Your task to perform on an android device: change notification settings in the gmail app Image 0: 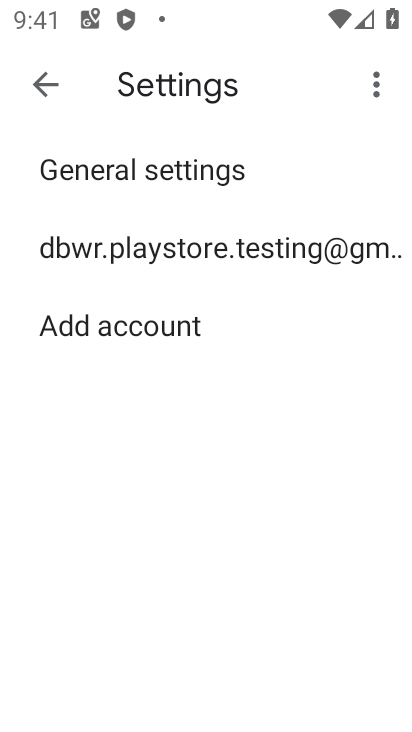
Step 0: click (51, 94)
Your task to perform on an android device: change notification settings in the gmail app Image 1: 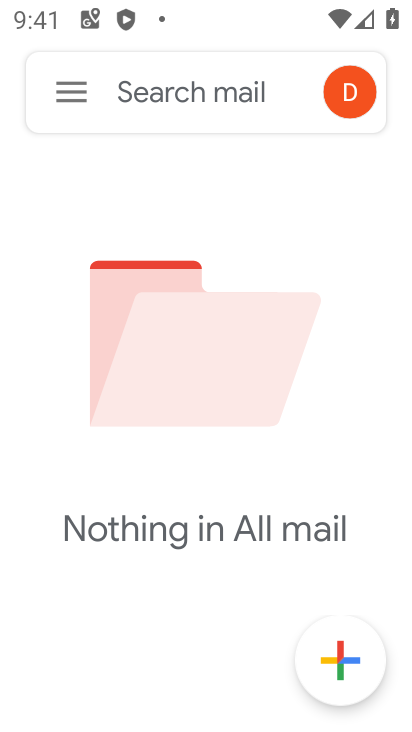
Step 1: click (51, 94)
Your task to perform on an android device: change notification settings in the gmail app Image 2: 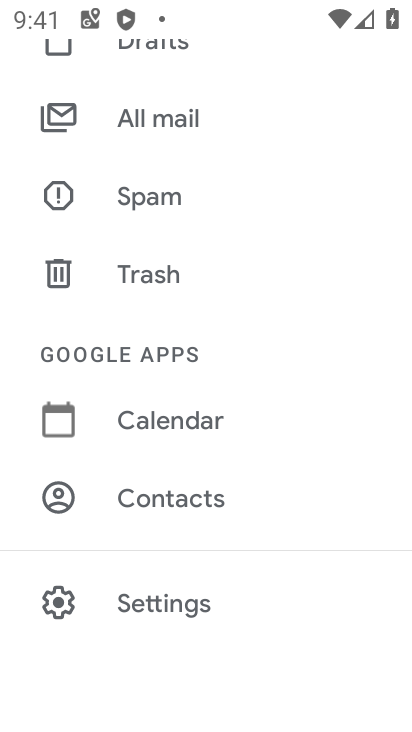
Step 2: click (186, 630)
Your task to perform on an android device: change notification settings in the gmail app Image 3: 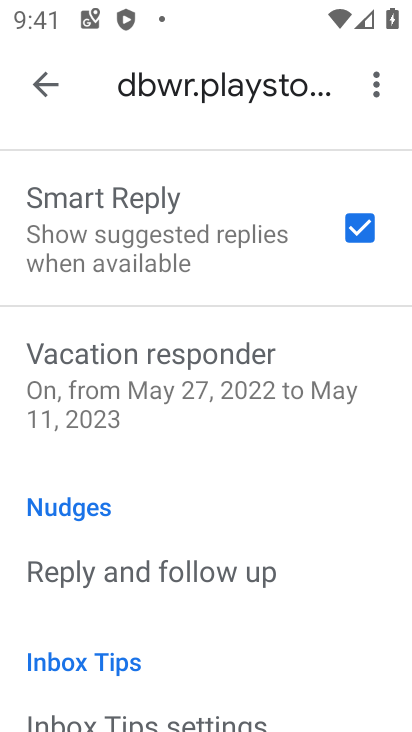
Step 3: drag from (226, 626) to (196, 193)
Your task to perform on an android device: change notification settings in the gmail app Image 4: 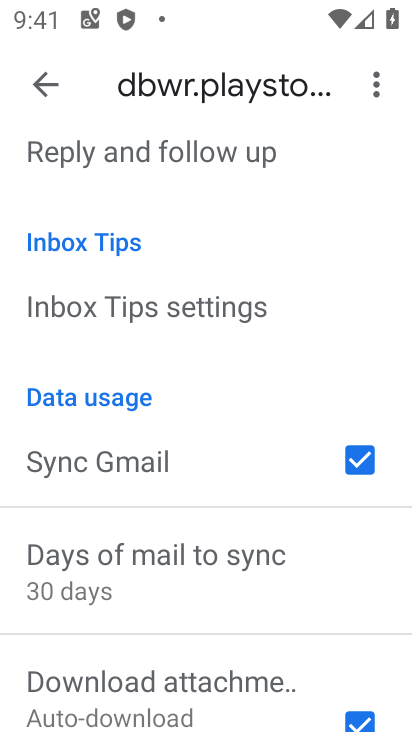
Step 4: drag from (261, 579) to (275, 135)
Your task to perform on an android device: change notification settings in the gmail app Image 5: 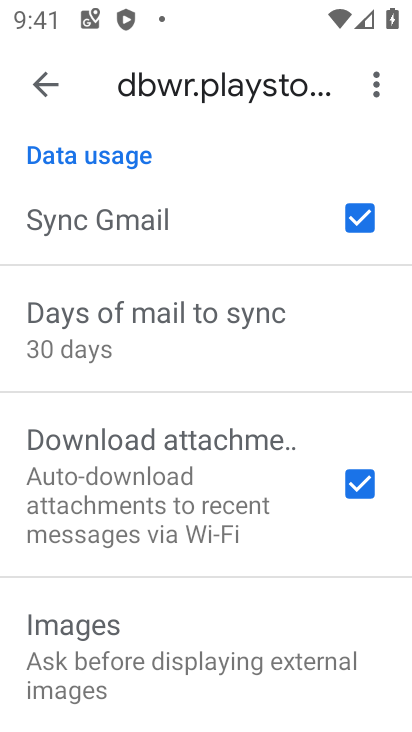
Step 5: drag from (199, 602) to (157, 153)
Your task to perform on an android device: change notification settings in the gmail app Image 6: 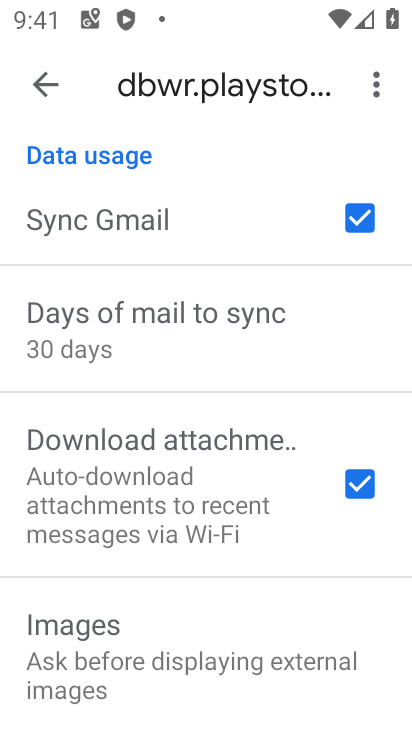
Step 6: drag from (158, 152) to (195, 685)
Your task to perform on an android device: change notification settings in the gmail app Image 7: 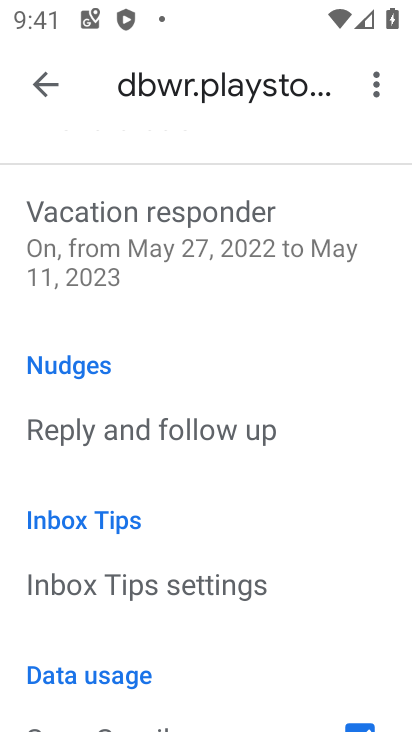
Step 7: drag from (114, 232) to (210, 714)
Your task to perform on an android device: change notification settings in the gmail app Image 8: 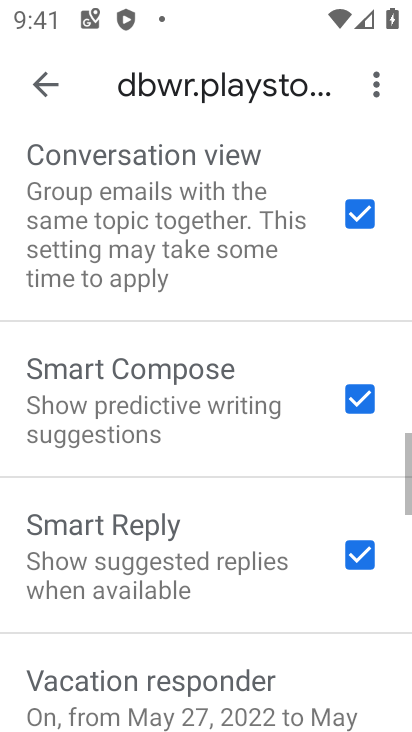
Step 8: drag from (148, 201) to (242, 709)
Your task to perform on an android device: change notification settings in the gmail app Image 9: 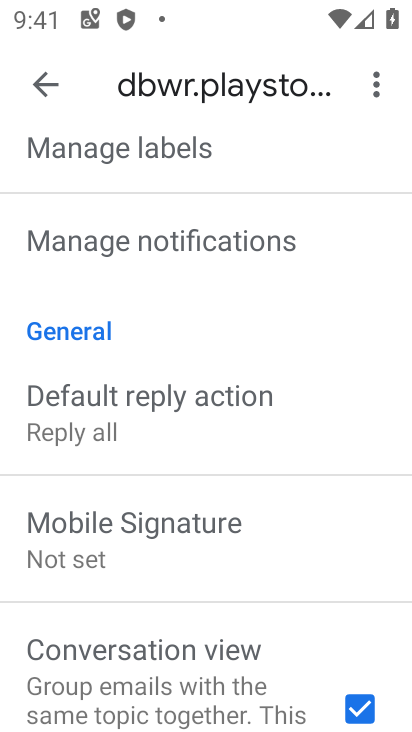
Step 9: drag from (159, 274) to (256, 731)
Your task to perform on an android device: change notification settings in the gmail app Image 10: 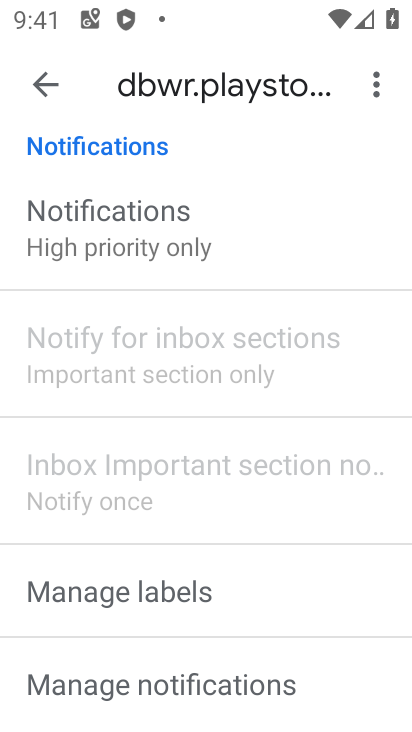
Step 10: click (145, 245)
Your task to perform on an android device: change notification settings in the gmail app Image 11: 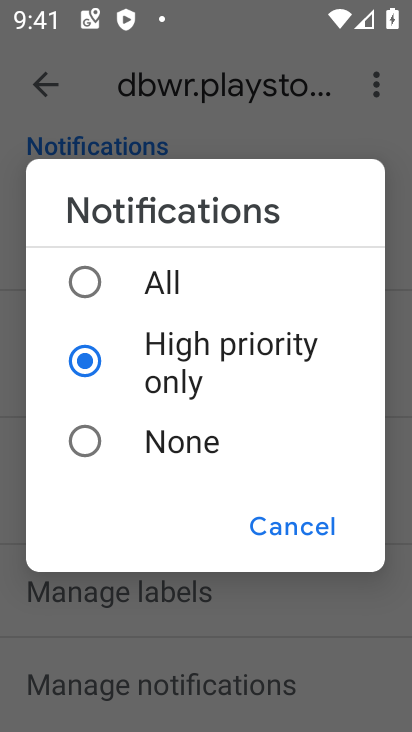
Step 11: click (89, 276)
Your task to perform on an android device: change notification settings in the gmail app Image 12: 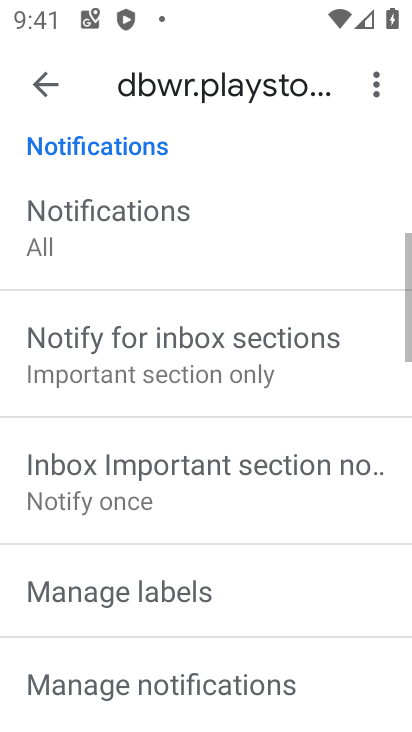
Step 12: task complete